Your task to perform on an android device: Go to CNN.com Image 0: 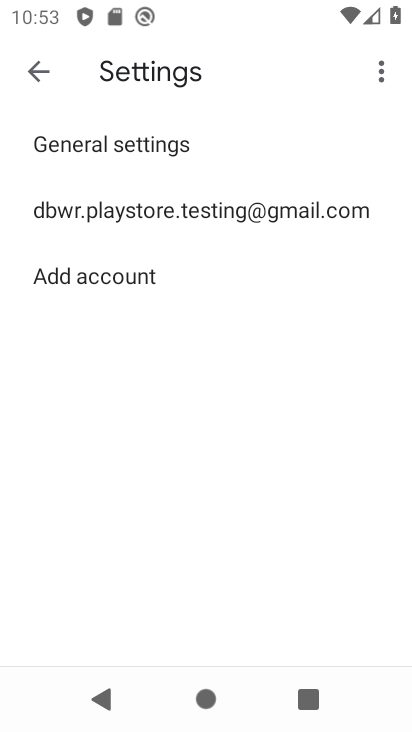
Step 0: press home button
Your task to perform on an android device: Go to CNN.com Image 1: 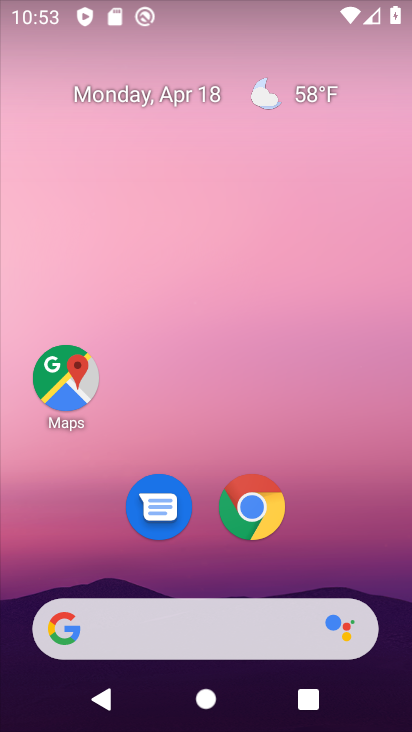
Step 1: click (257, 521)
Your task to perform on an android device: Go to CNN.com Image 2: 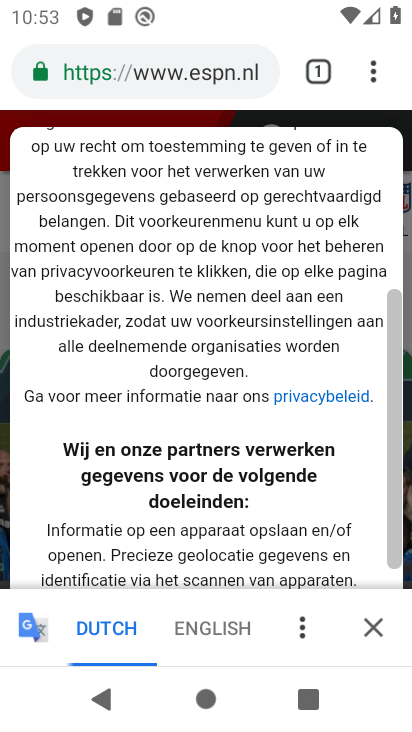
Step 2: click (222, 70)
Your task to perform on an android device: Go to CNN.com Image 3: 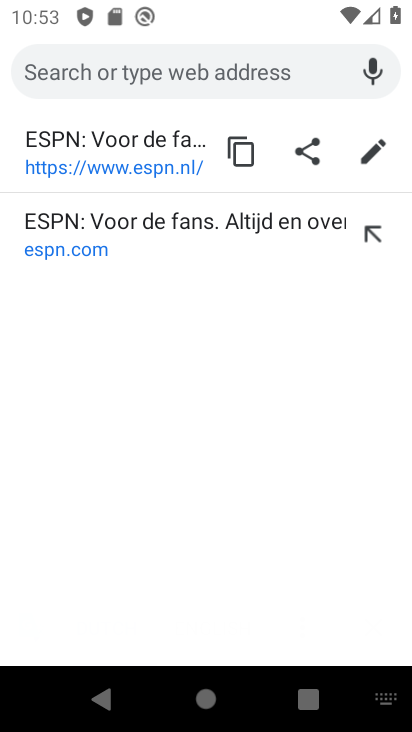
Step 3: type "cnn.com"
Your task to perform on an android device: Go to CNN.com Image 4: 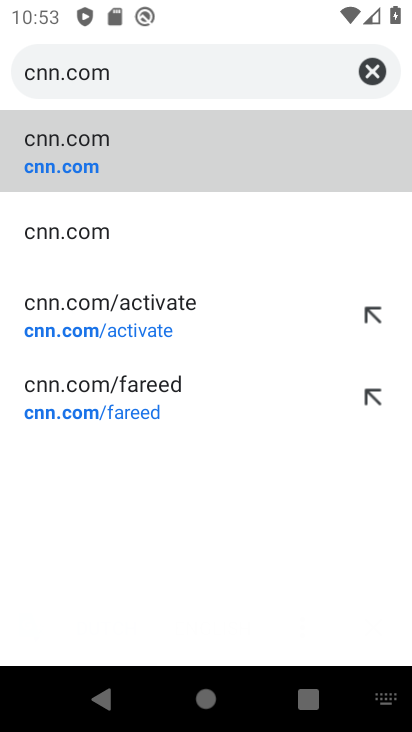
Step 4: click (160, 173)
Your task to perform on an android device: Go to CNN.com Image 5: 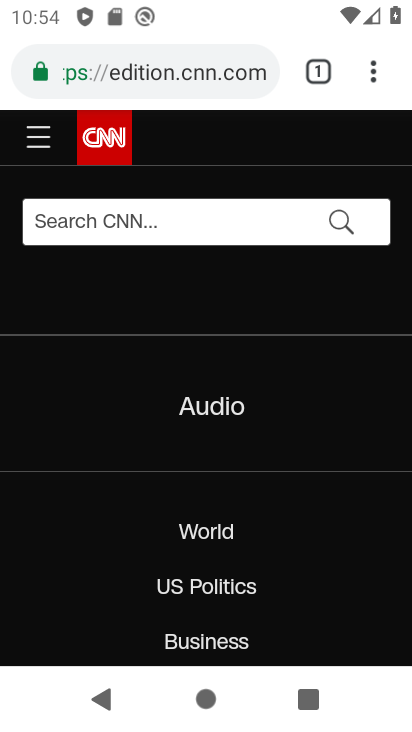
Step 5: task complete